Your task to perform on an android device: open app "Spotify" (install if not already installed) Image 0: 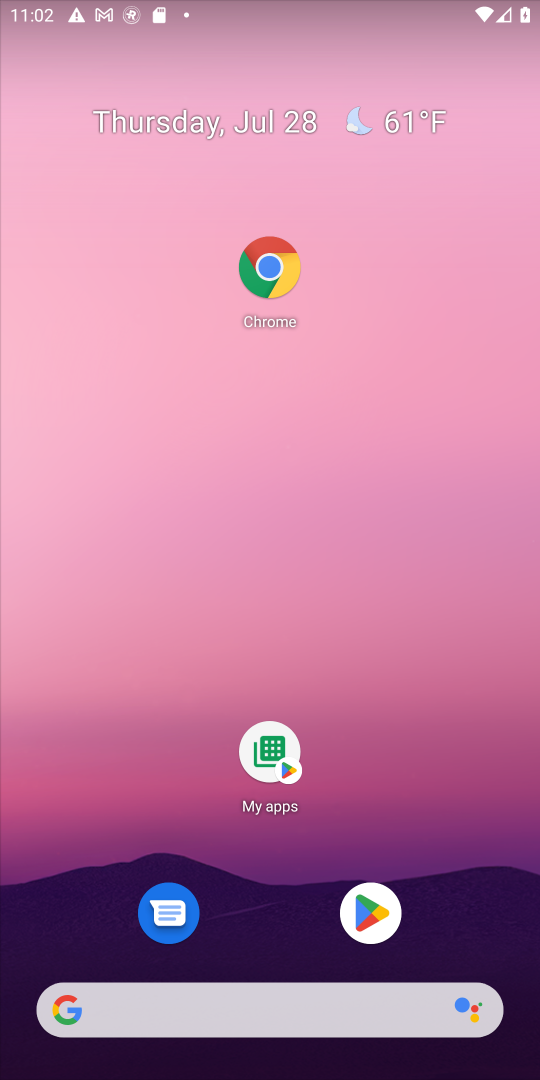
Step 0: click (383, 984)
Your task to perform on an android device: open app "Spotify" (install if not already installed) Image 1: 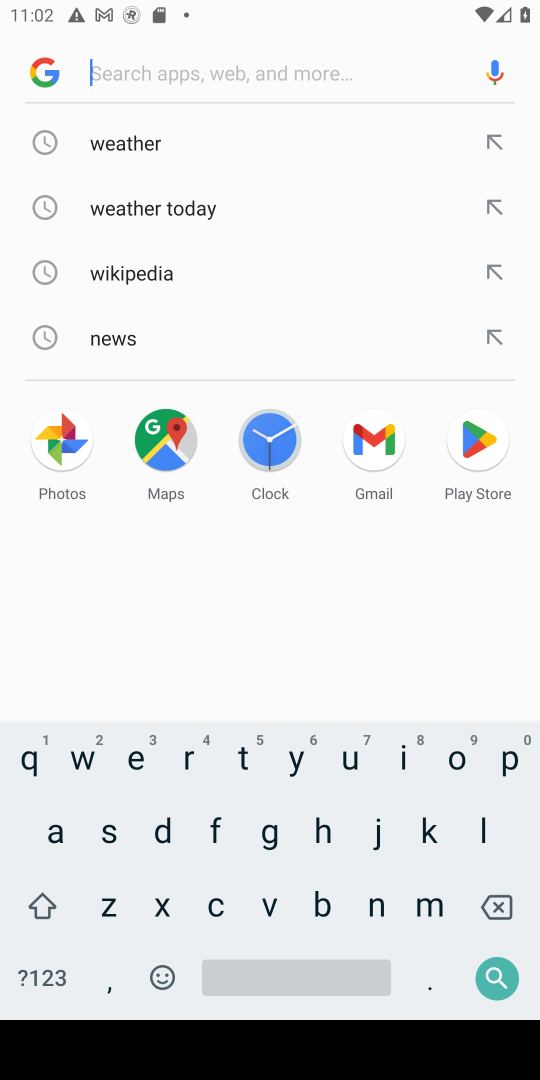
Step 1: click (469, 463)
Your task to perform on an android device: open app "Spotify" (install if not already installed) Image 2: 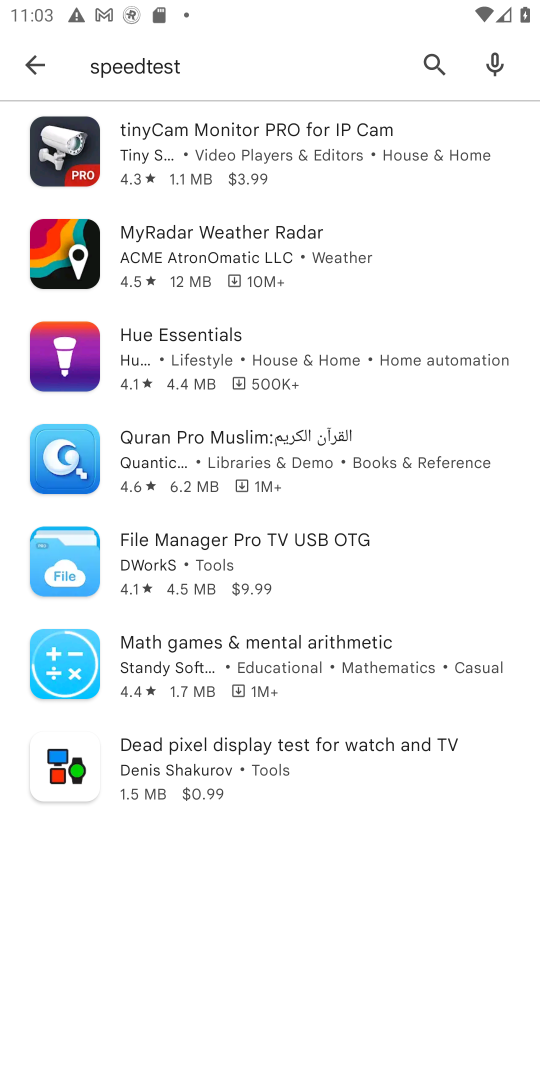
Step 2: click (430, 50)
Your task to perform on an android device: open app "Spotify" (install if not already installed) Image 3: 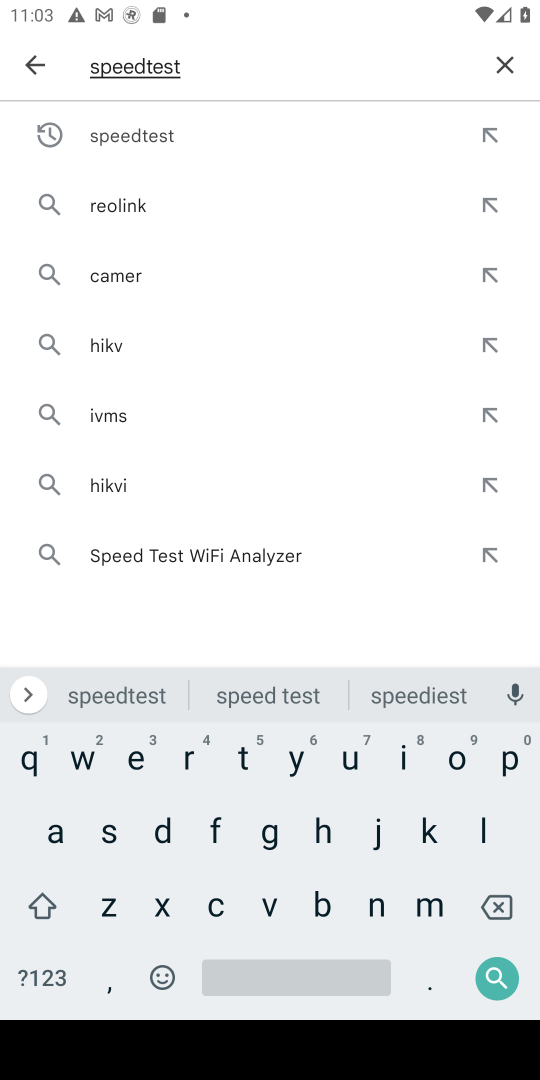
Step 3: click (510, 62)
Your task to perform on an android device: open app "Spotify" (install if not already installed) Image 4: 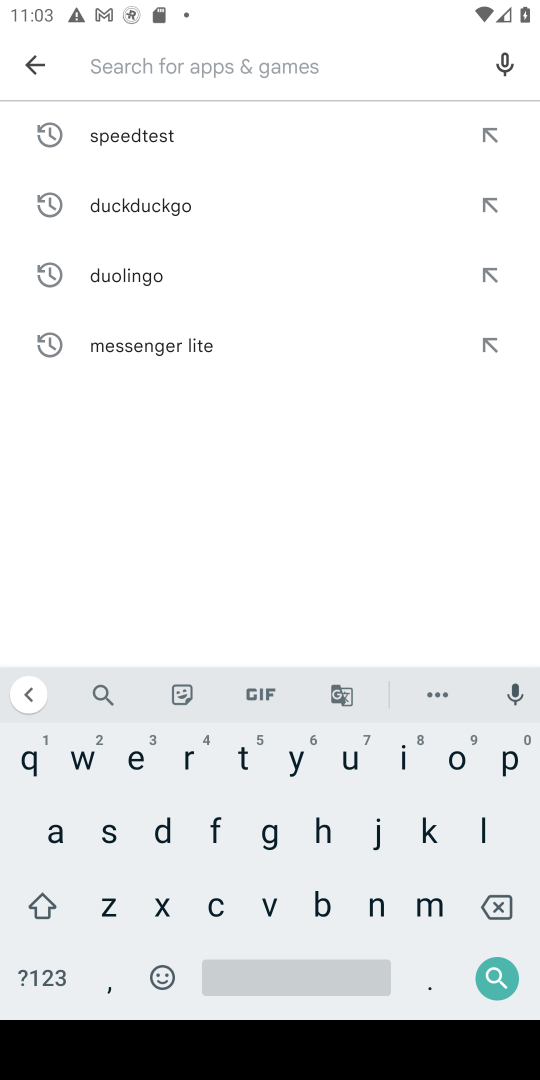
Step 4: click (103, 831)
Your task to perform on an android device: open app "Spotify" (install if not already installed) Image 5: 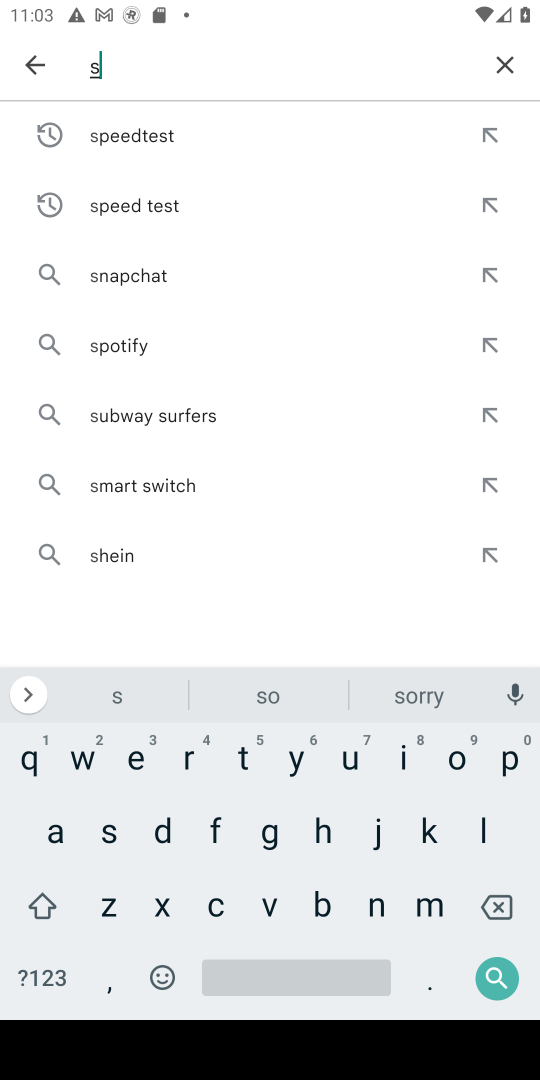
Step 5: click (512, 756)
Your task to perform on an android device: open app "Spotify" (install if not already installed) Image 6: 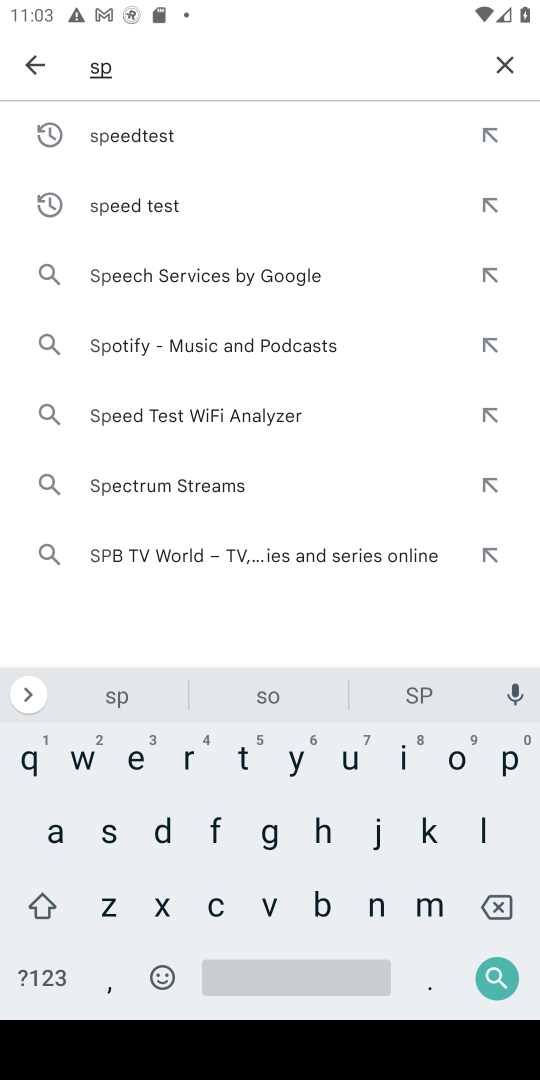
Step 6: click (503, 912)
Your task to perform on an android device: open app "Spotify" (install if not already installed) Image 7: 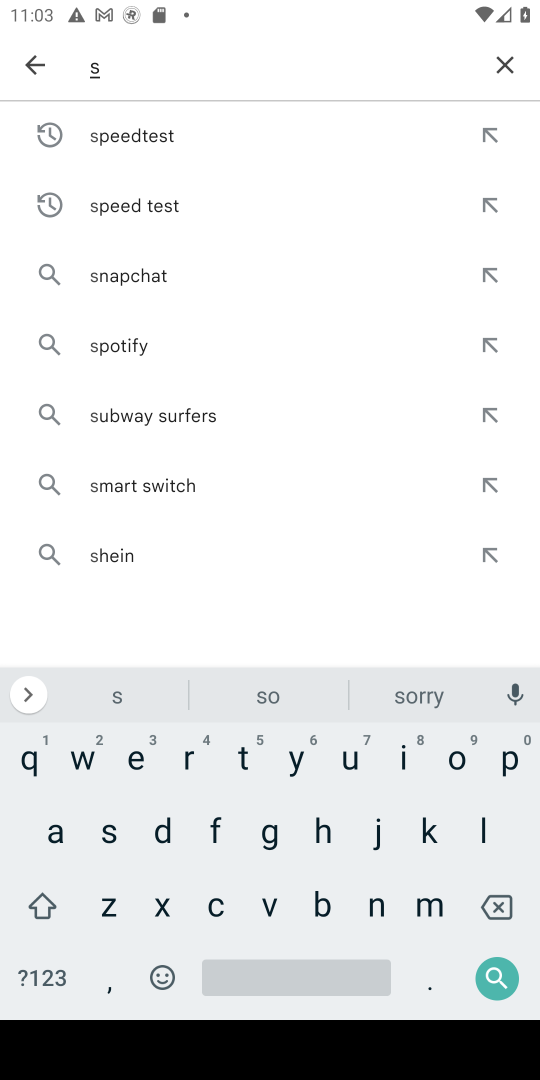
Step 7: click (134, 344)
Your task to perform on an android device: open app "Spotify" (install if not already installed) Image 8: 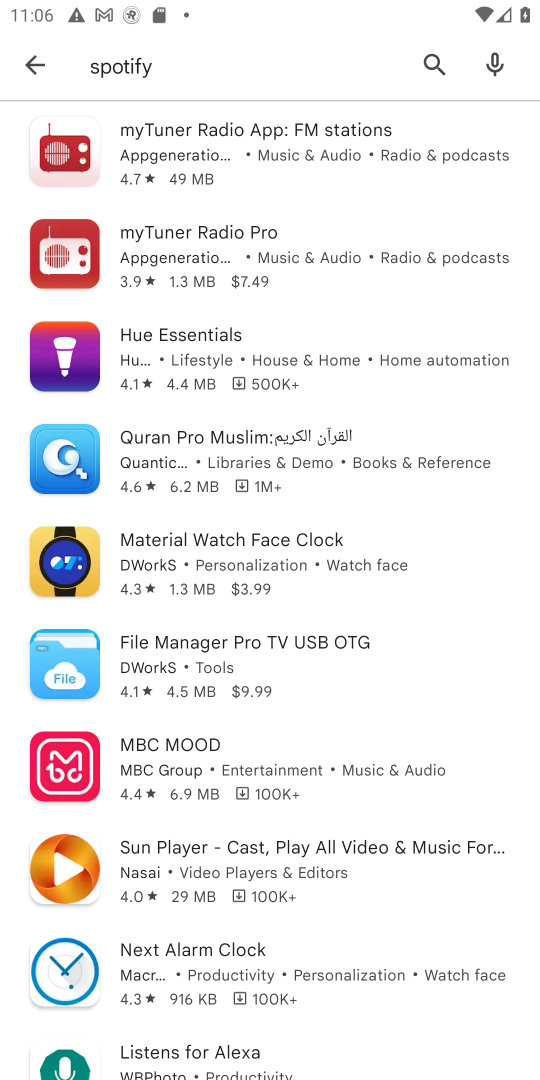
Step 8: task complete